Your task to perform on an android device: Go to Google Image 0: 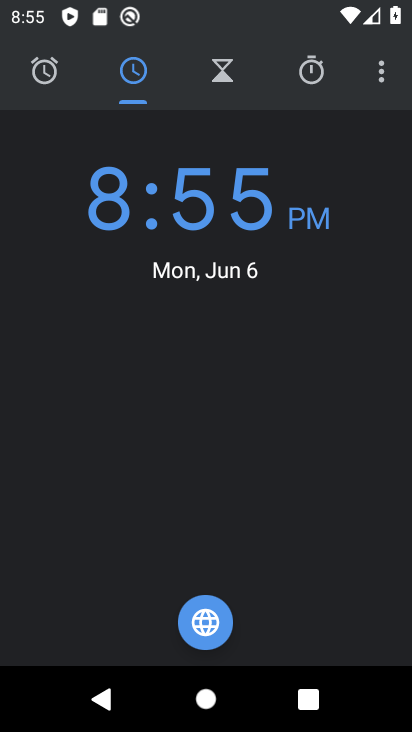
Step 0: press home button
Your task to perform on an android device: Go to Google Image 1: 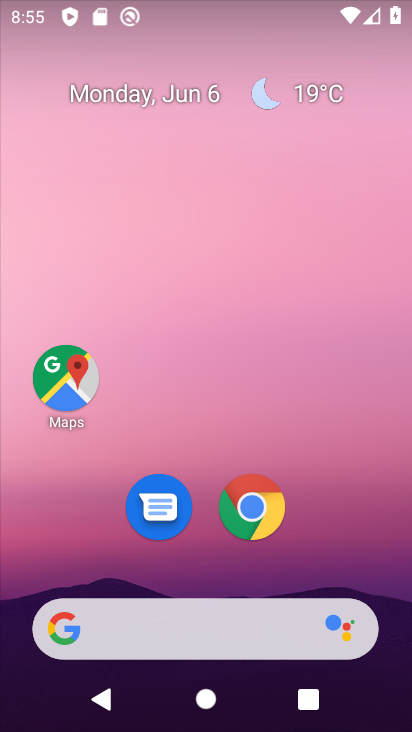
Step 1: drag from (205, 488) to (253, 110)
Your task to perform on an android device: Go to Google Image 2: 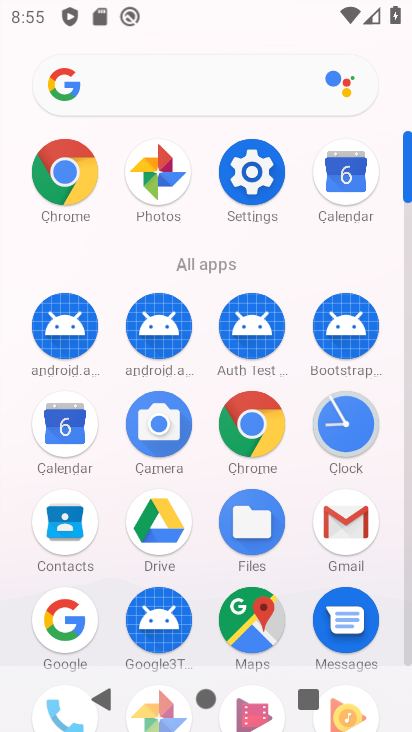
Step 2: click (56, 613)
Your task to perform on an android device: Go to Google Image 3: 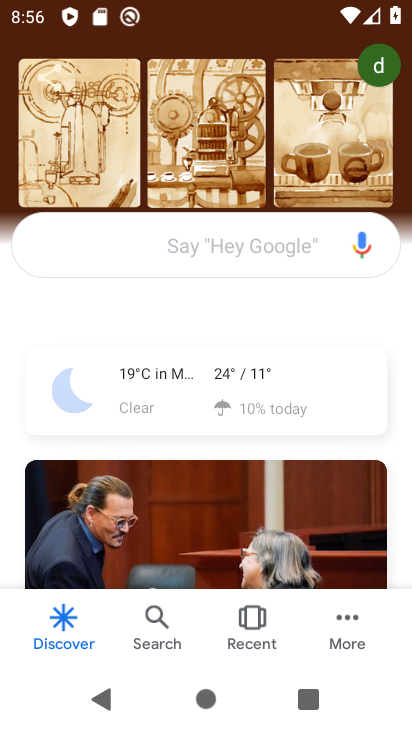
Step 3: task complete